Your task to perform on an android device: Open Chrome and go to settings Image 0: 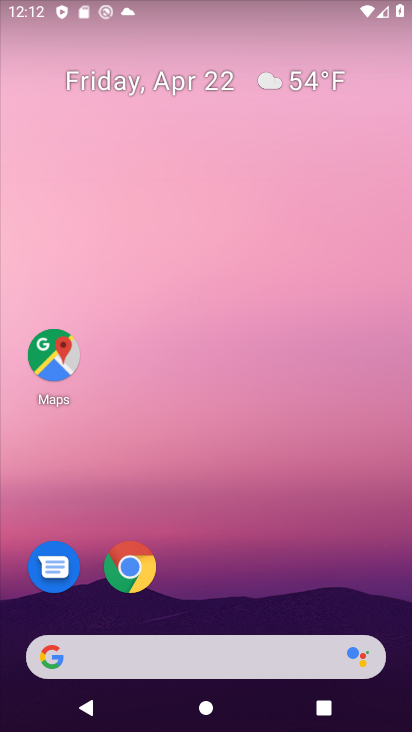
Step 0: drag from (272, 620) to (315, 216)
Your task to perform on an android device: Open Chrome and go to settings Image 1: 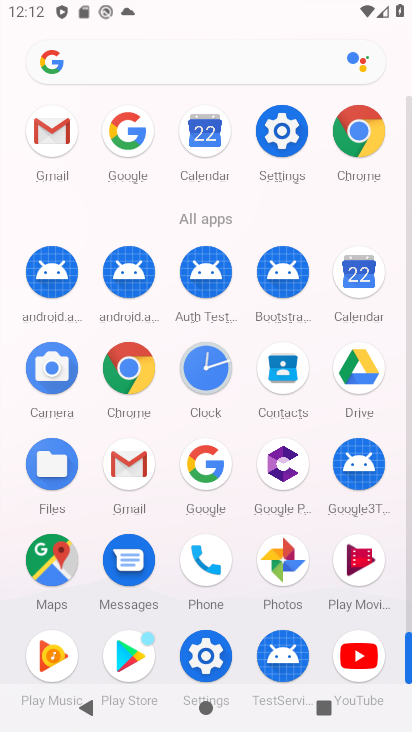
Step 1: click (361, 167)
Your task to perform on an android device: Open Chrome and go to settings Image 2: 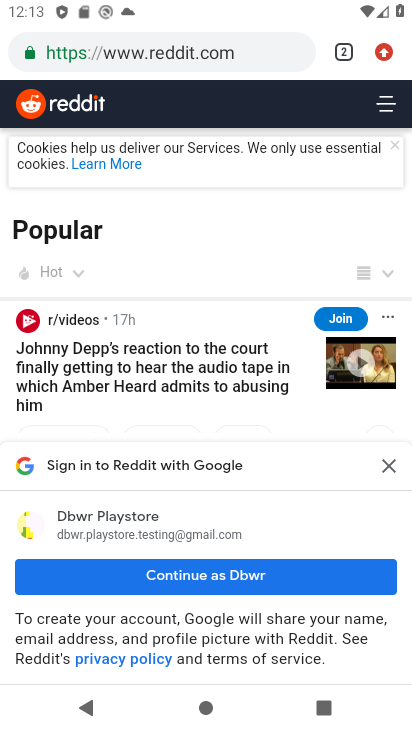
Step 2: click (383, 58)
Your task to perform on an android device: Open Chrome and go to settings Image 3: 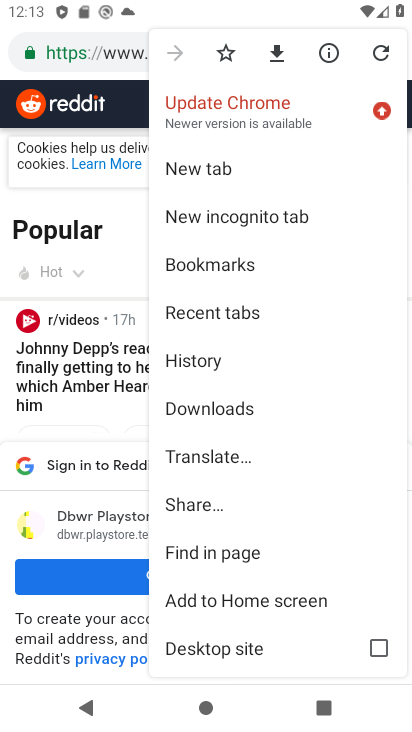
Step 3: drag from (242, 529) to (258, 405)
Your task to perform on an android device: Open Chrome and go to settings Image 4: 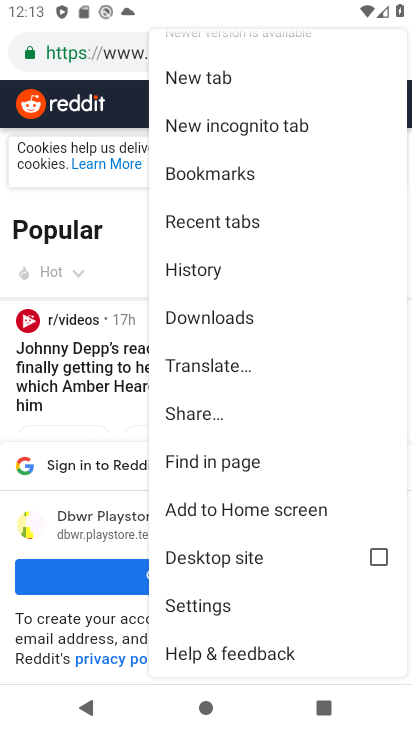
Step 4: click (231, 609)
Your task to perform on an android device: Open Chrome and go to settings Image 5: 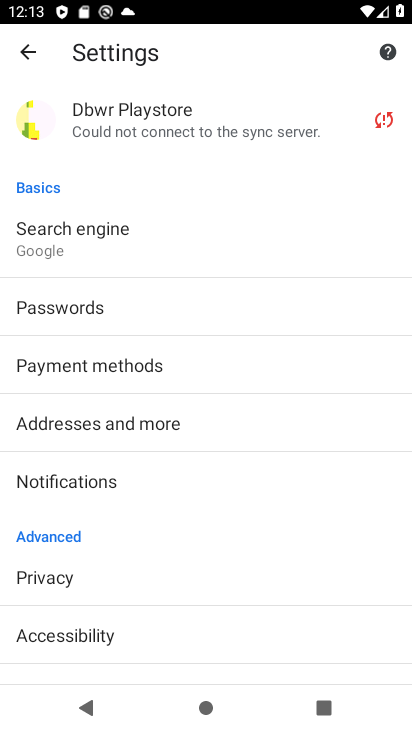
Step 5: task complete